Your task to perform on an android device: turn on wifi Image 0: 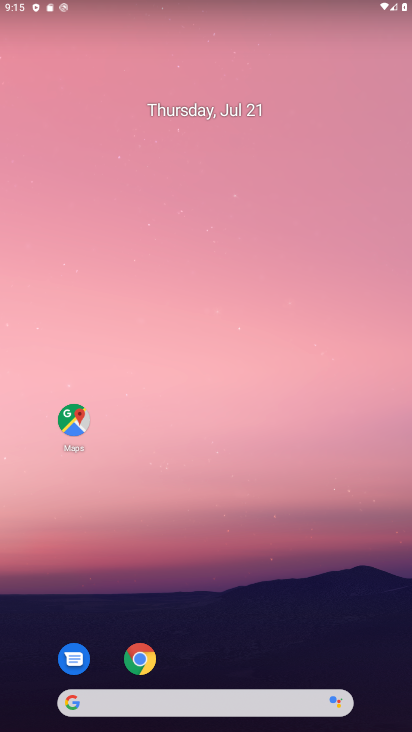
Step 0: drag from (224, 618) to (212, 52)
Your task to perform on an android device: turn on wifi Image 1: 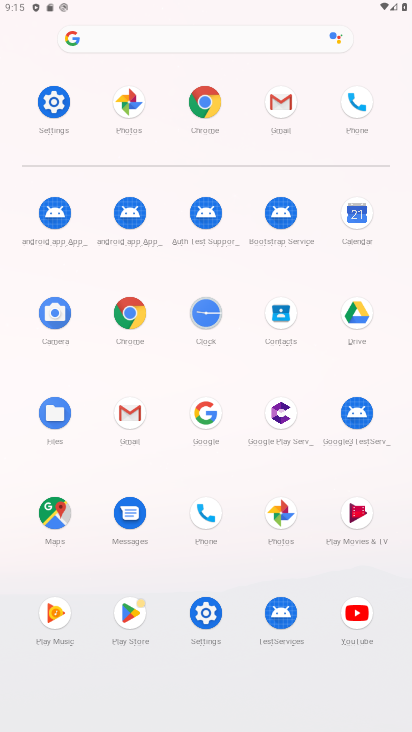
Step 1: click (59, 104)
Your task to perform on an android device: turn on wifi Image 2: 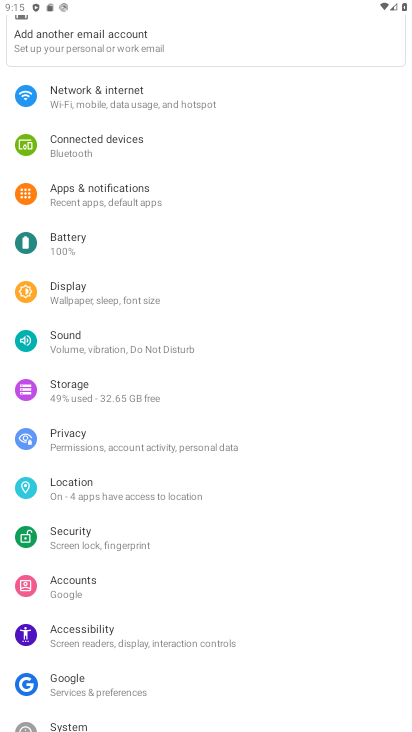
Step 2: click (60, 103)
Your task to perform on an android device: turn on wifi Image 3: 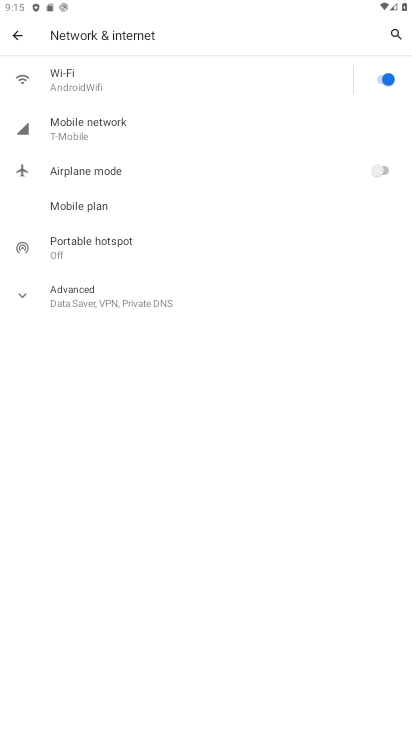
Step 3: click (86, 70)
Your task to perform on an android device: turn on wifi Image 4: 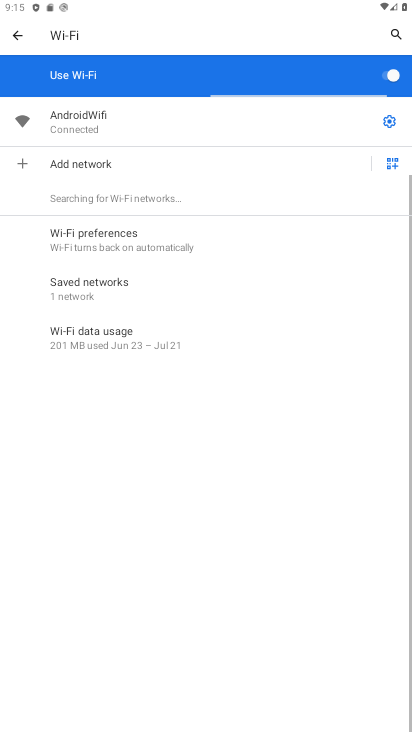
Step 4: task complete